Your task to perform on an android device: Search for "lg ultragear" on target.com, select the first entry, and add it to the cart. Image 0: 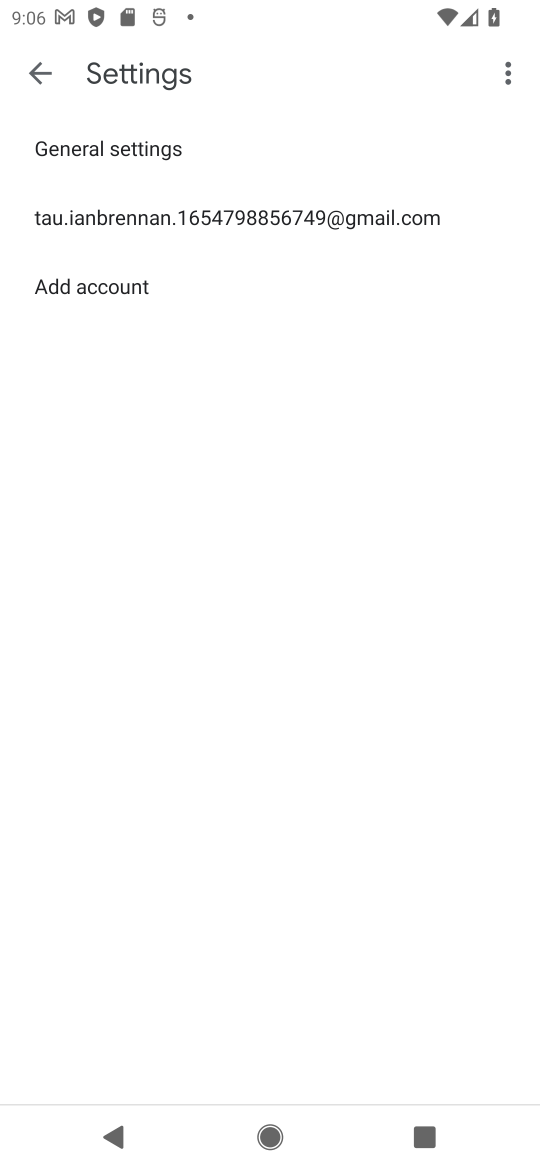
Step 0: press home button
Your task to perform on an android device: Search for "lg ultragear" on target.com, select the first entry, and add it to the cart. Image 1: 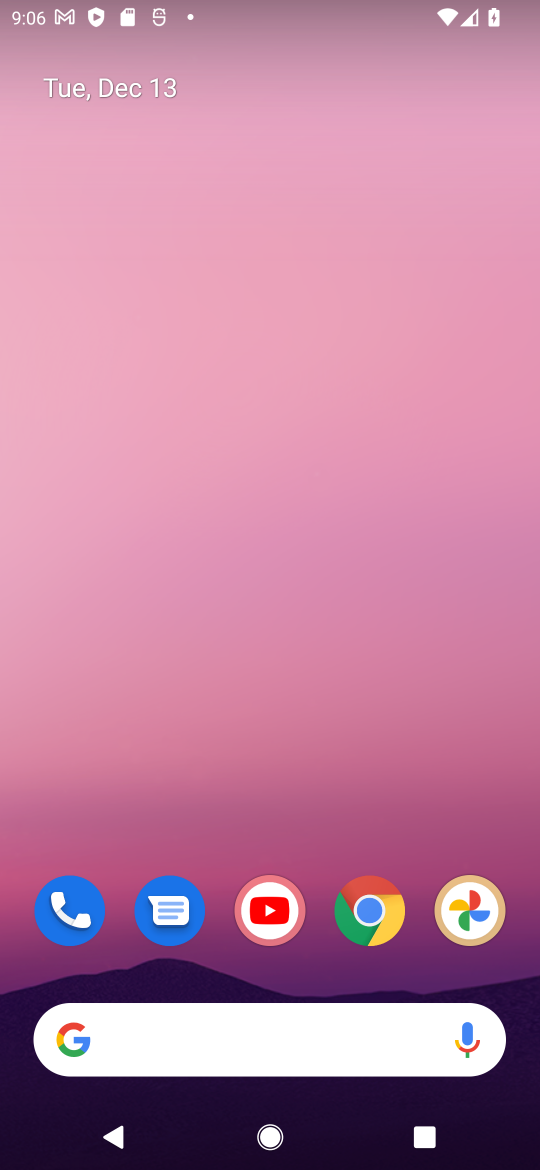
Step 1: drag from (274, 743) to (254, 238)
Your task to perform on an android device: Search for "lg ultragear" on target.com, select the first entry, and add it to the cart. Image 2: 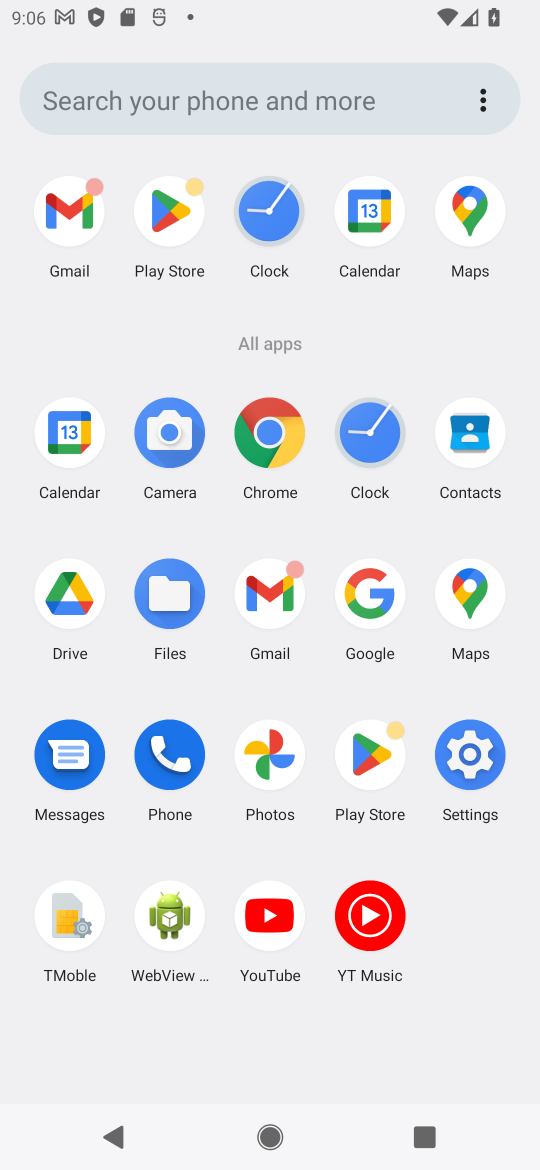
Step 2: click (364, 596)
Your task to perform on an android device: Search for "lg ultragear" on target.com, select the first entry, and add it to the cart. Image 3: 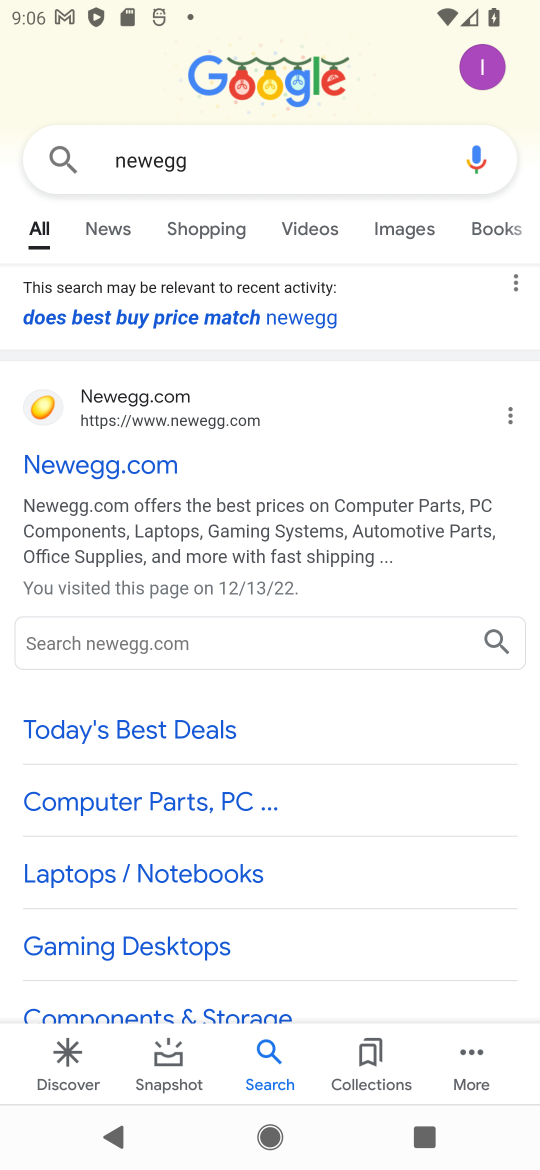
Step 3: click (151, 156)
Your task to perform on an android device: Search for "lg ultragear" on target.com, select the first entry, and add it to the cart. Image 4: 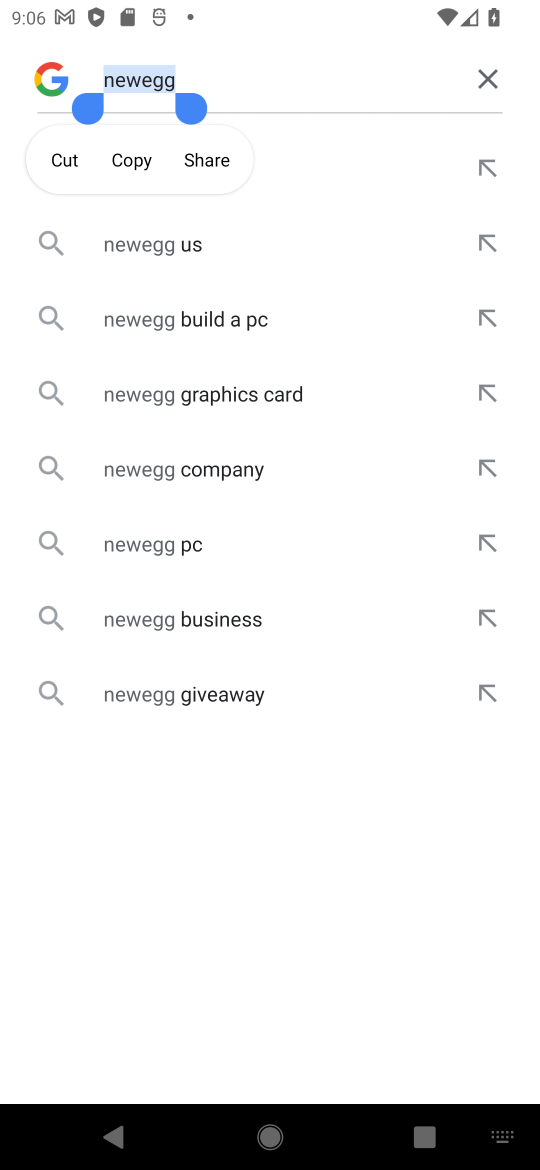
Step 4: click (487, 73)
Your task to perform on an android device: Search for "lg ultragear" on target.com, select the first entry, and add it to the cart. Image 5: 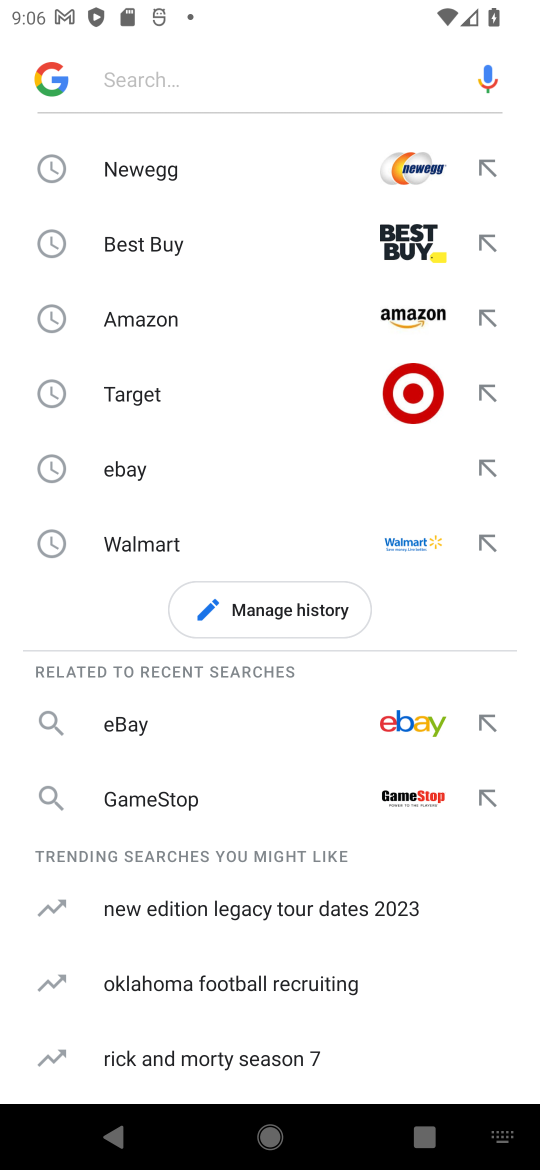
Step 5: click (159, 392)
Your task to perform on an android device: Search for "lg ultragear" on target.com, select the first entry, and add it to the cart. Image 6: 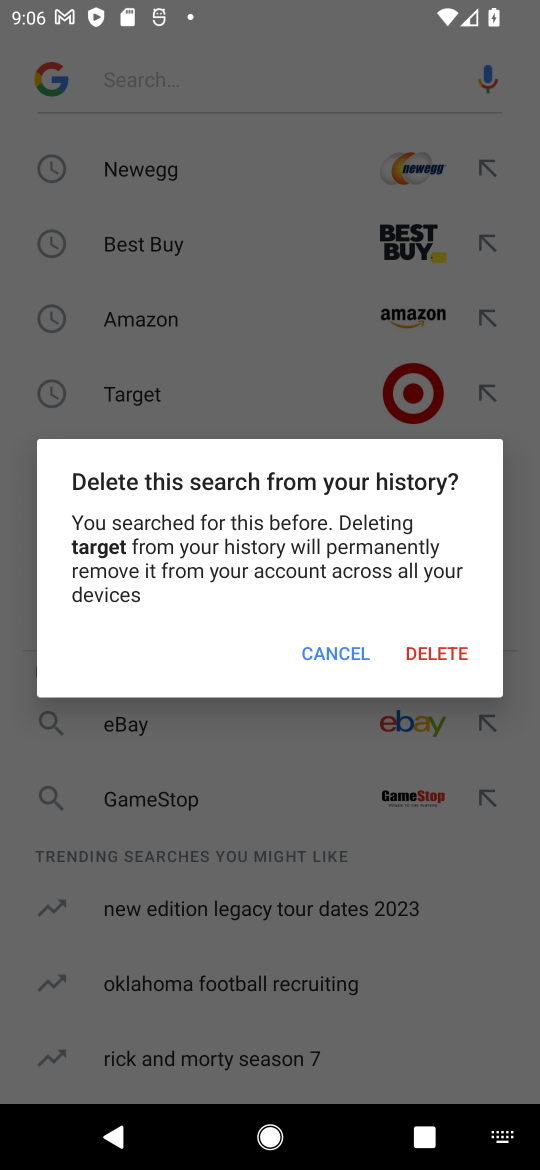
Step 6: click (317, 654)
Your task to perform on an android device: Search for "lg ultragear" on target.com, select the first entry, and add it to the cart. Image 7: 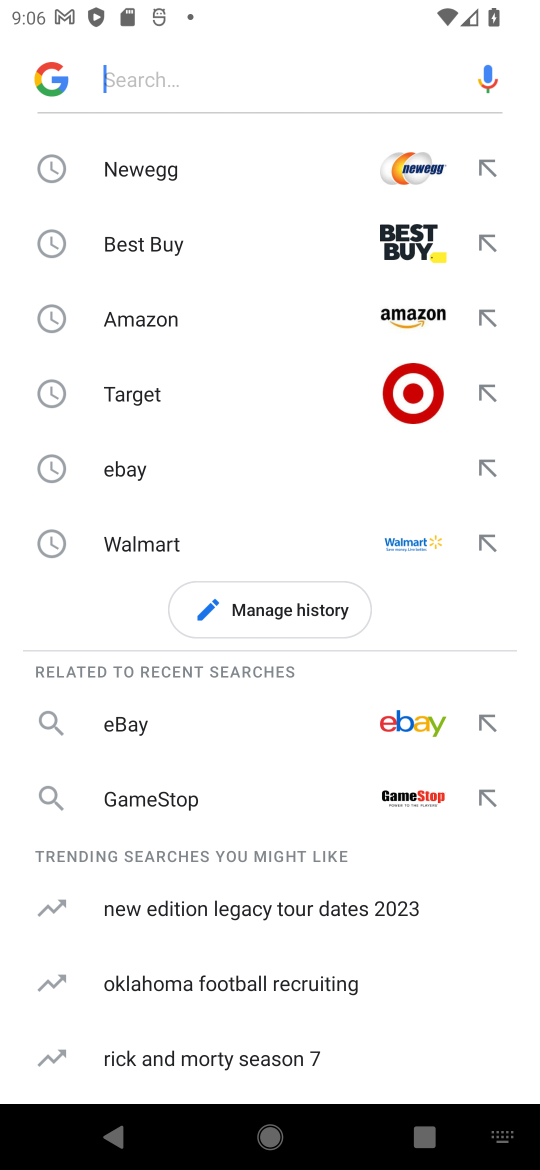
Step 7: click (421, 391)
Your task to perform on an android device: Search for "lg ultragear" on target.com, select the first entry, and add it to the cart. Image 8: 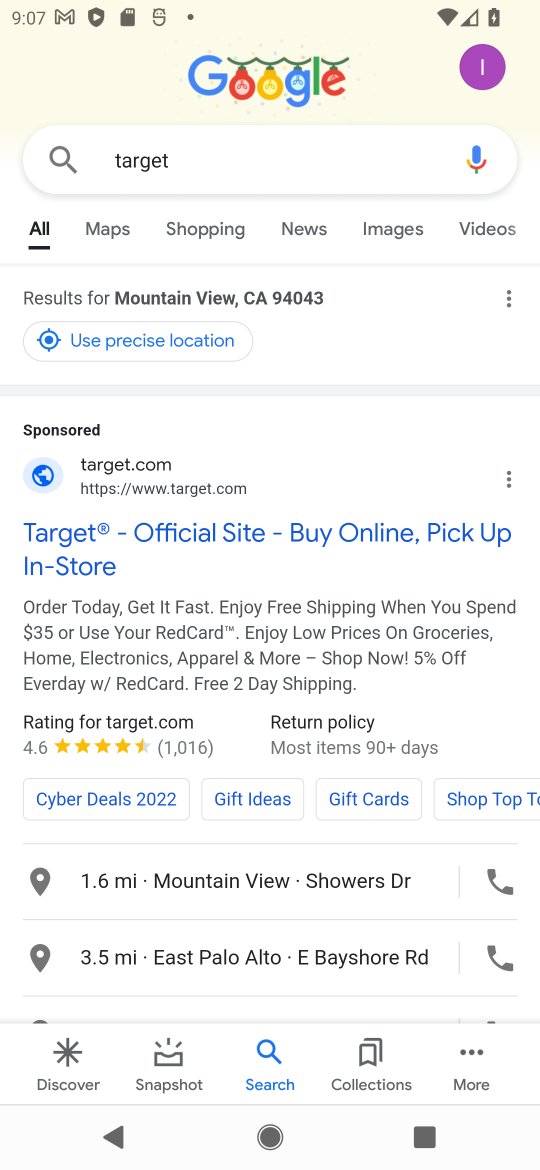
Step 8: click (124, 540)
Your task to perform on an android device: Search for "lg ultragear" on target.com, select the first entry, and add it to the cart. Image 9: 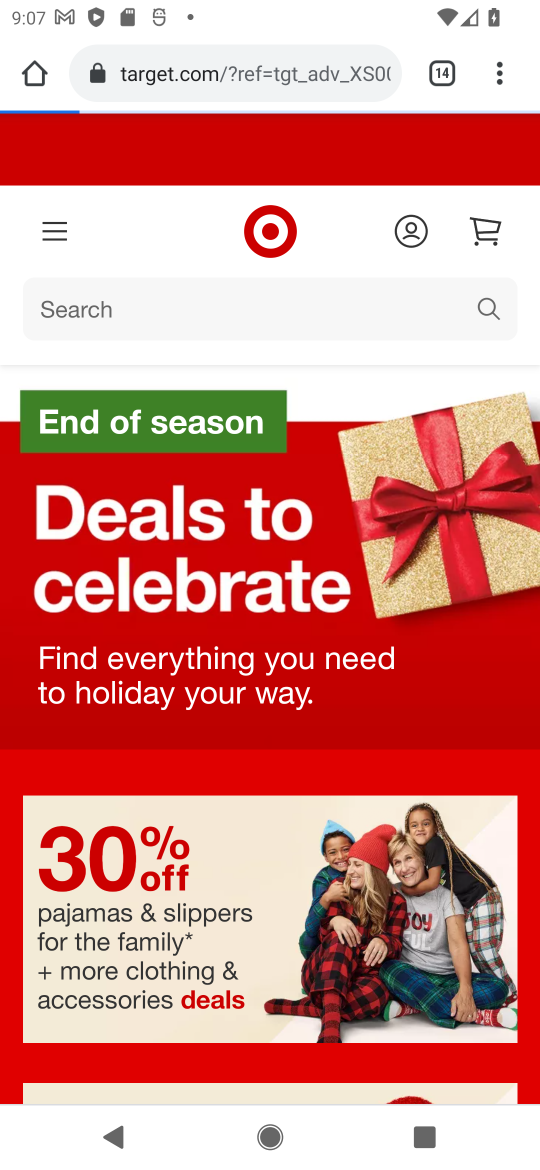
Step 9: click (206, 310)
Your task to perform on an android device: Search for "lg ultragear" on target.com, select the first entry, and add it to the cart. Image 10: 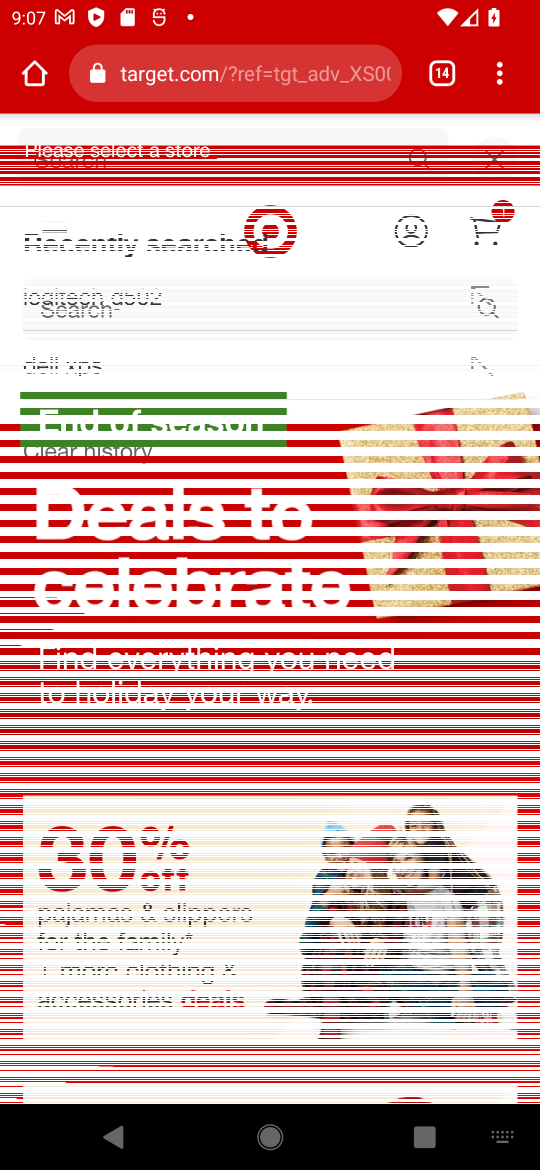
Step 10: type "lg ultragear"
Your task to perform on an android device: Search for "lg ultragear" on target.com, select the first entry, and add it to the cart. Image 11: 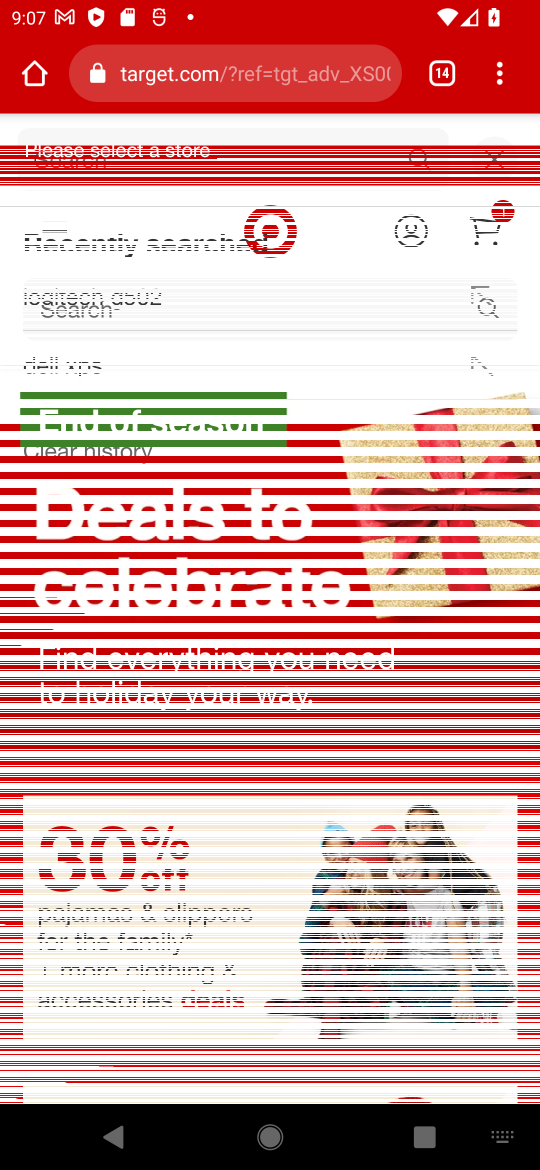
Step 11: click (429, 156)
Your task to perform on an android device: Search for "lg ultragear" on target.com, select the first entry, and add it to the cart. Image 12: 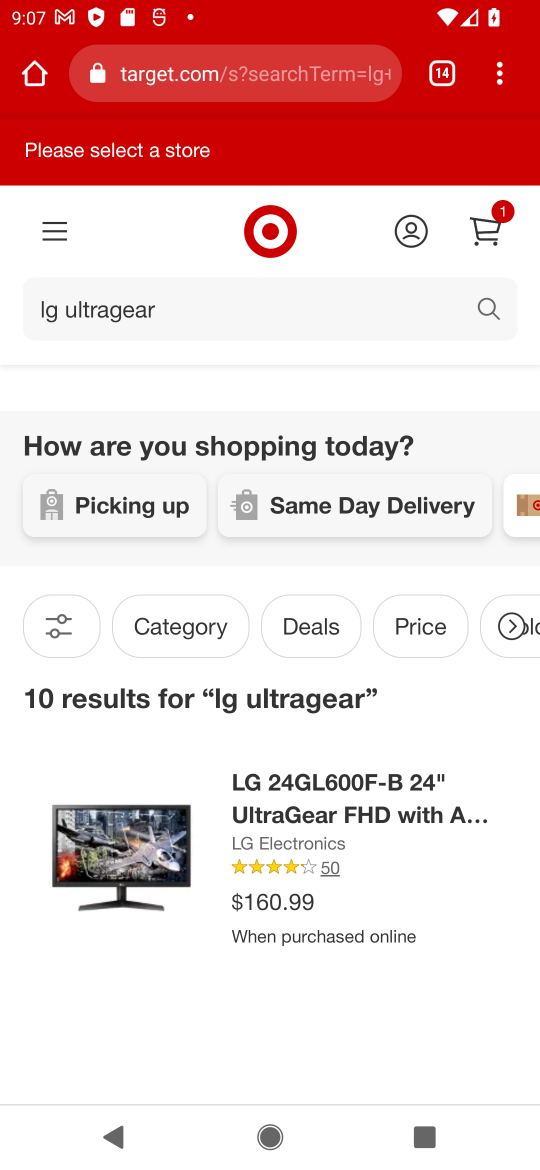
Step 12: drag from (250, 865) to (226, 407)
Your task to perform on an android device: Search for "lg ultragear" on target.com, select the first entry, and add it to the cart. Image 13: 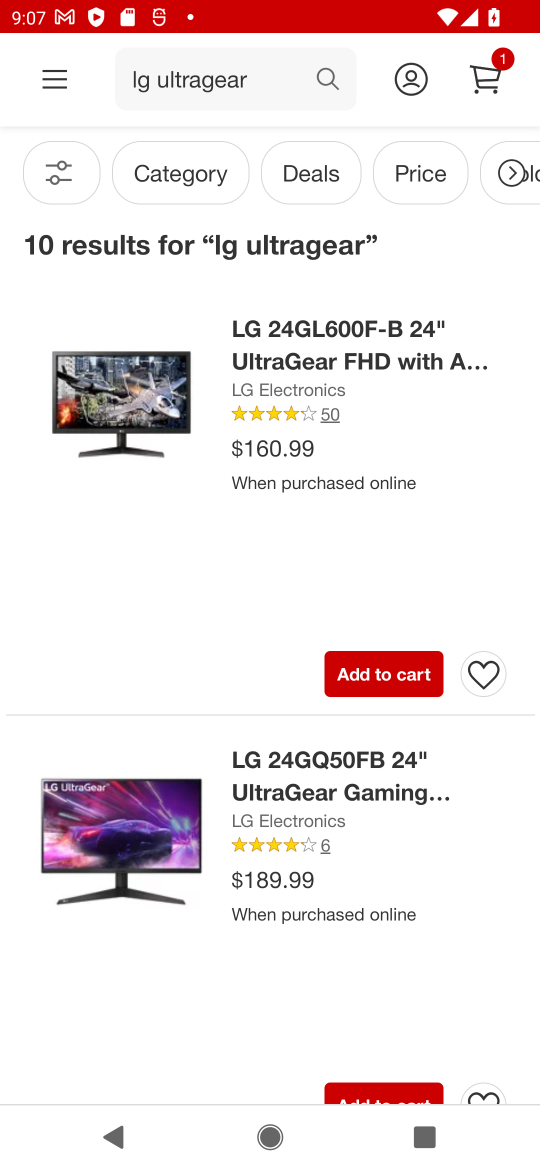
Step 13: click (370, 670)
Your task to perform on an android device: Search for "lg ultragear" on target.com, select the first entry, and add it to the cart. Image 14: 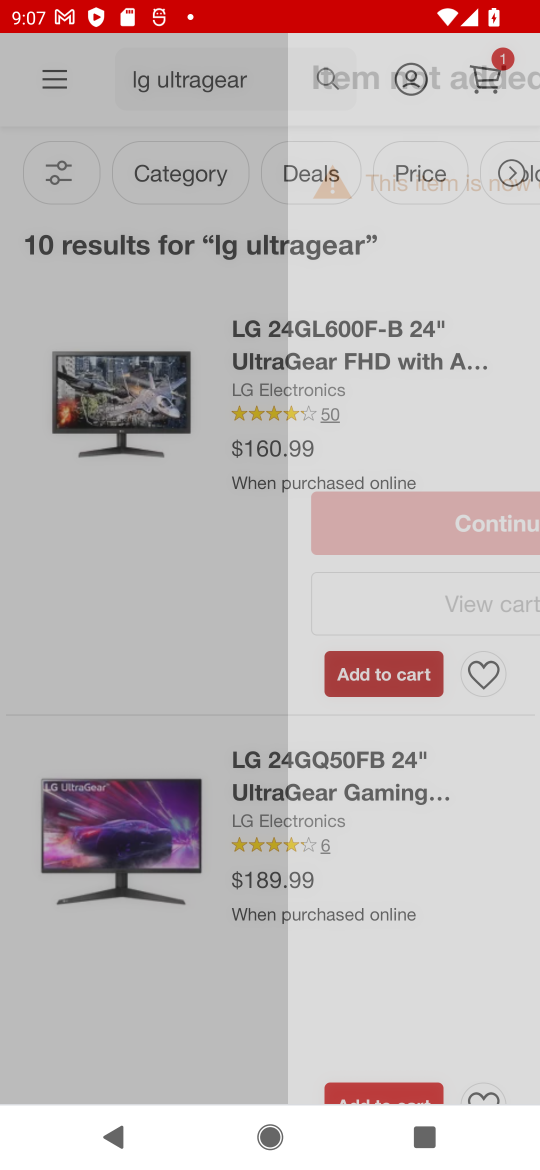
Step 14: click (370, 670)
Your task to perform on an android device: Search for "lg ultragear" on target.com, select the first entry, and add it to the cart. Image 15: 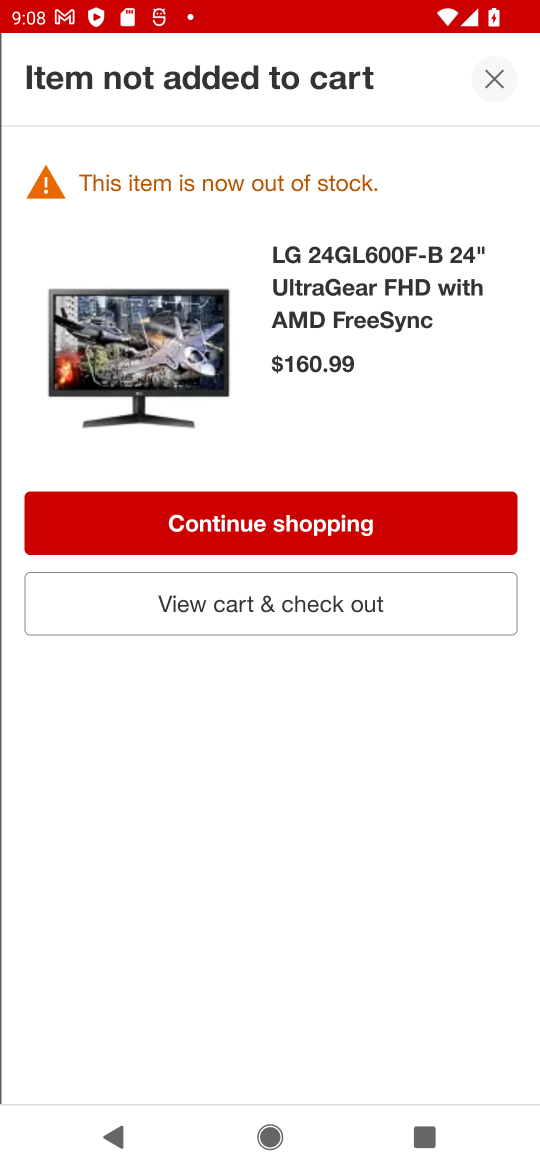
Step 15: task complete